Your task to perform on an android device: open a new tab in the chrome app Image 0: 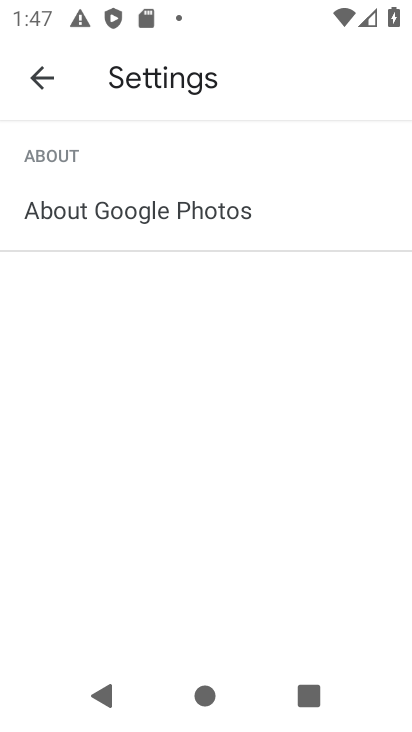
Step 0: press home button
Your task to perform on an android device: open a new tab in the chrome app Image 1: 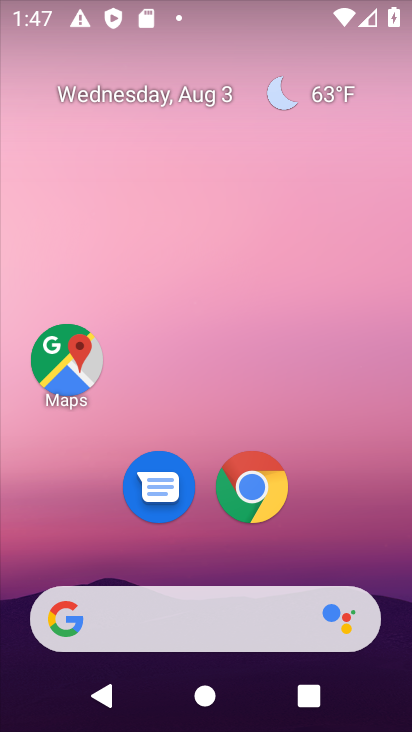
Step 1: drag from (312, 525) to (272, 77)
Your task to perform on an android device: open a new tab in the chrome app Image 2: 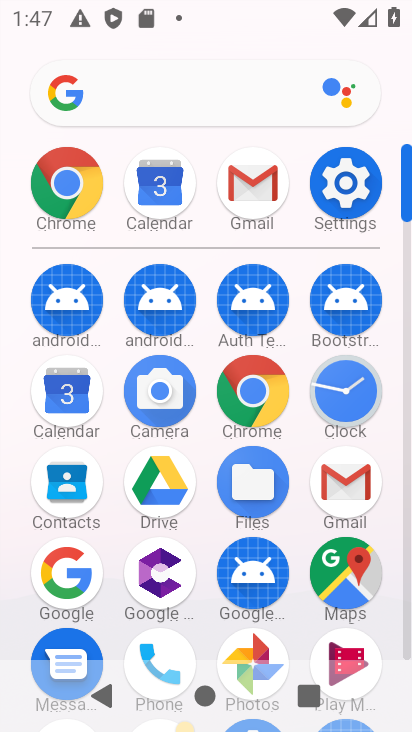
Step 2: click (255, 379)
Your task to perform on an android device: open a new tab in the chrome app Image 3: 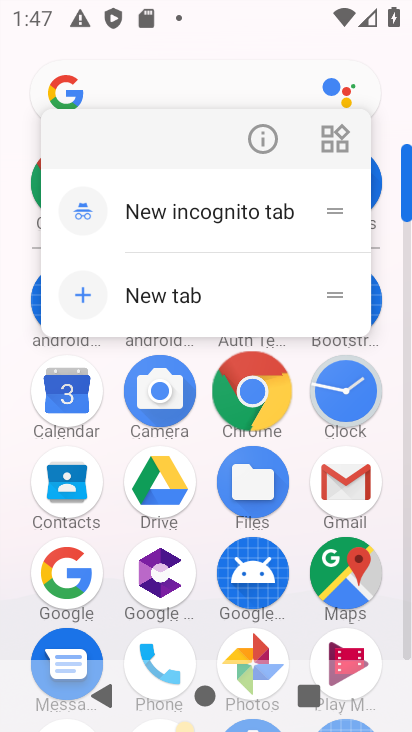
Step 3: click (255, 379)
Your task to perform on an android device: open a new tab in the chrome app Image 4: 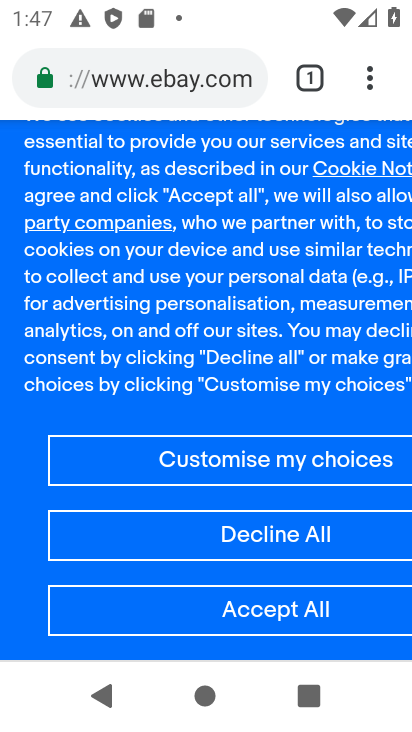
Step 4: task complete